Your task to perform on an android device: visit the assistant section in the google photos Image 0: 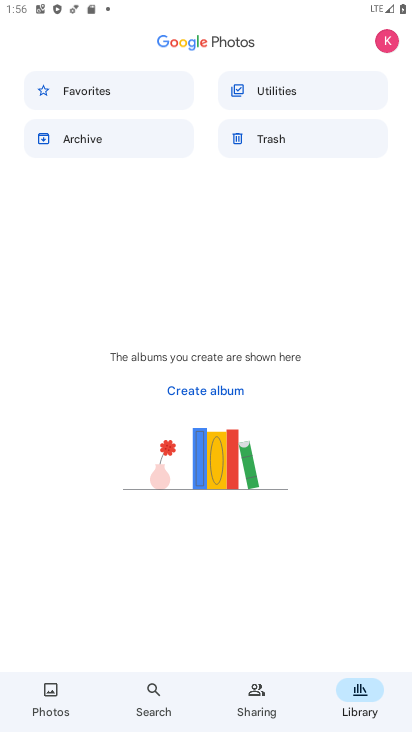
Step 0: press home button
Your task to perform on an android device: visit the assistant section in the google photos Image 1: 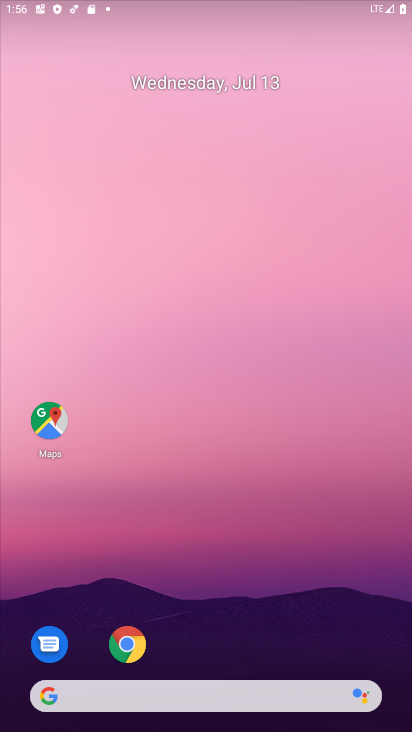
Step 1: drag from (318, 509) to (227, 112)
Your task to perform on an android device: visit the assistant section in the google photos Image 2: 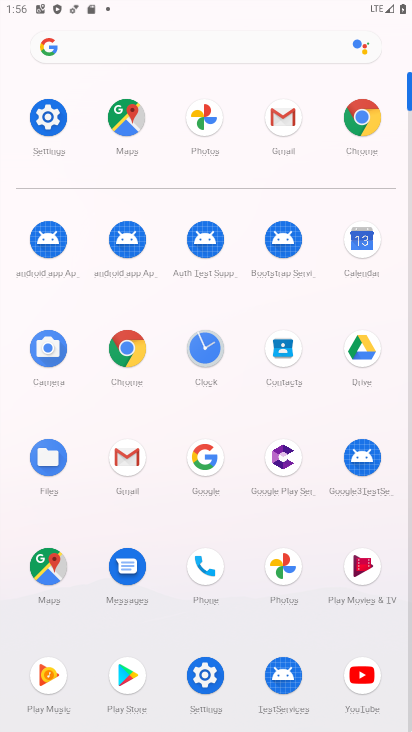
Step 2: click (217, 114)
Your task to perform on an android device: visit the assistant section in the google photos Image 3: 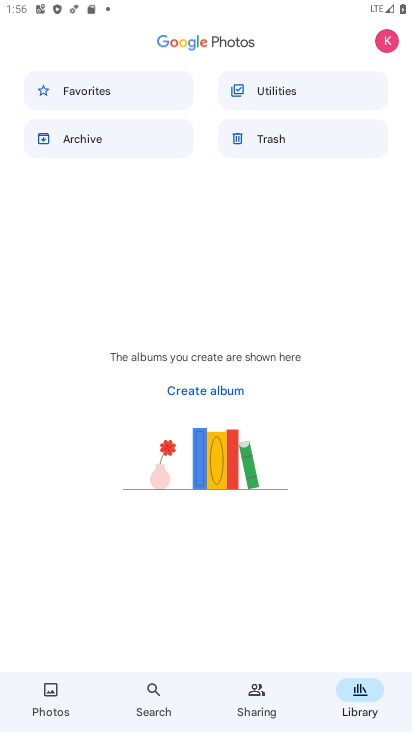
Step 3: click (269, 703)
Your task to perform on an android device: visit the assistant section in the google photos Image 4: 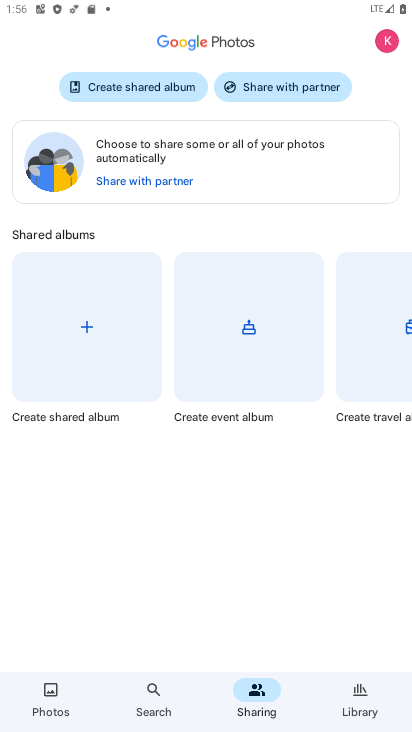
Step 4: click (55, 699)
Your task to perform on an android device: visit the assistant section in the google photos Image 5: 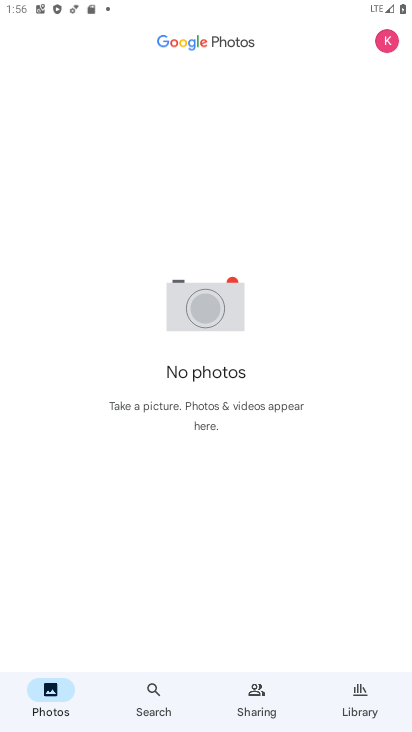
Step 5: task complete